Your task to perform on an android device: What's on my calendar tomorrow? Image 0: 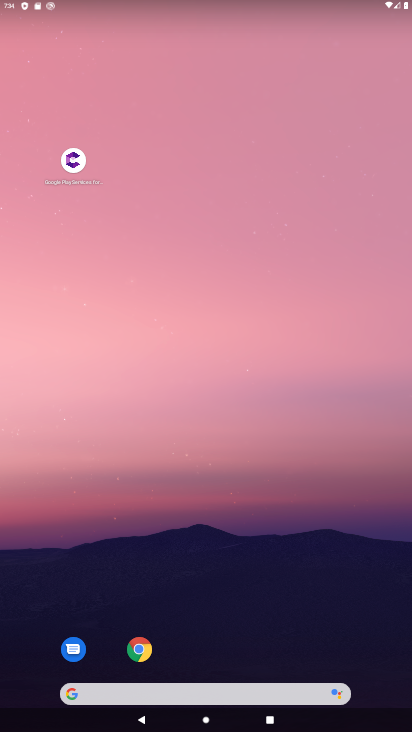
Step 0: press home button
Your task to perform on an android device: What's on my calendar tomorrow? Image 1: 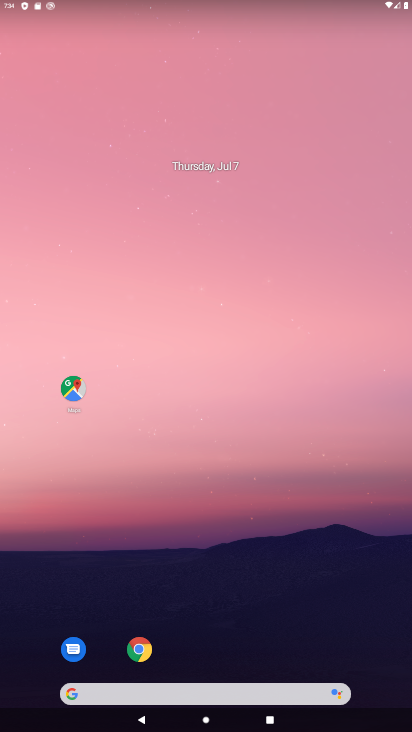
Step 1: drag from (219, 665) to (251, 184)
Your task to perform on an android device: What's on my calendar tomorrow? Image 2: 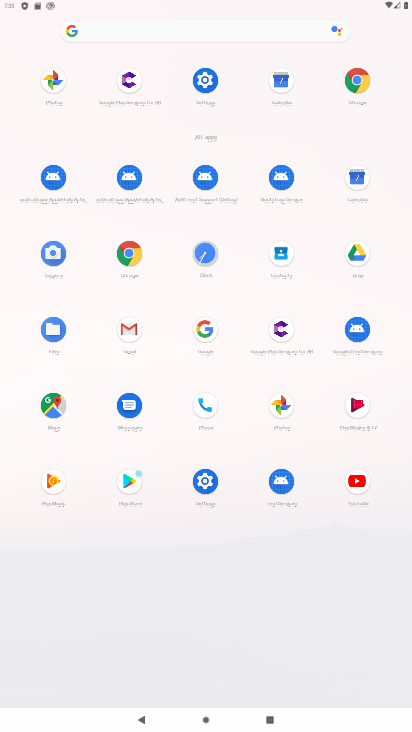
Step 2: click (354, 174)
Your task to perform on an android device: What's on my calendar tomorrow? Image 3: 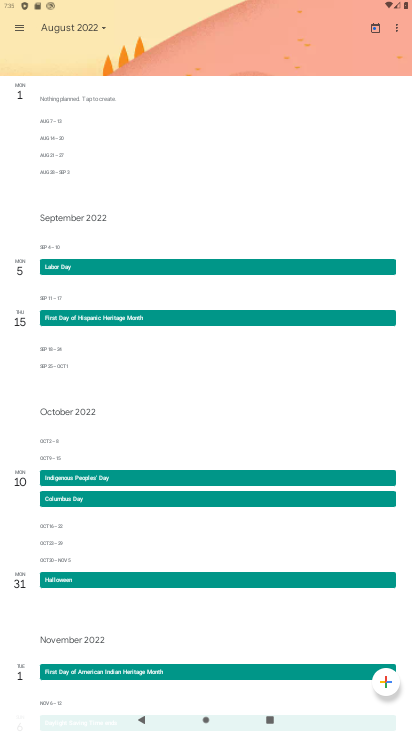
Step 3: click (22, 92)
Your task to perform on an android device: What's on my calendar tomorrow? Image 4: 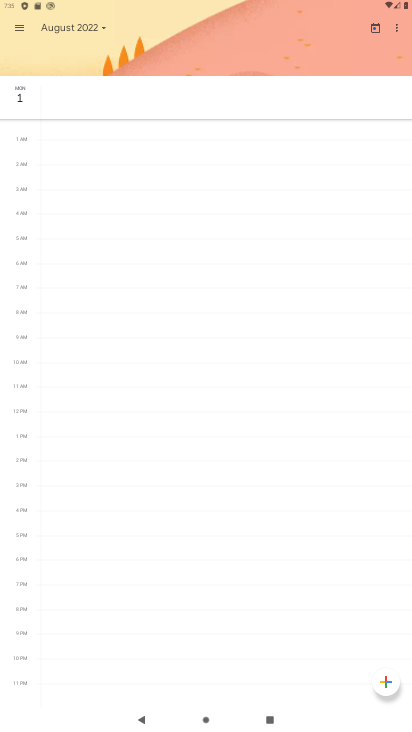
Step 4: click (25, 96)
Your task to perform on an android device: What's on my calendar tomorrow? Image 5: 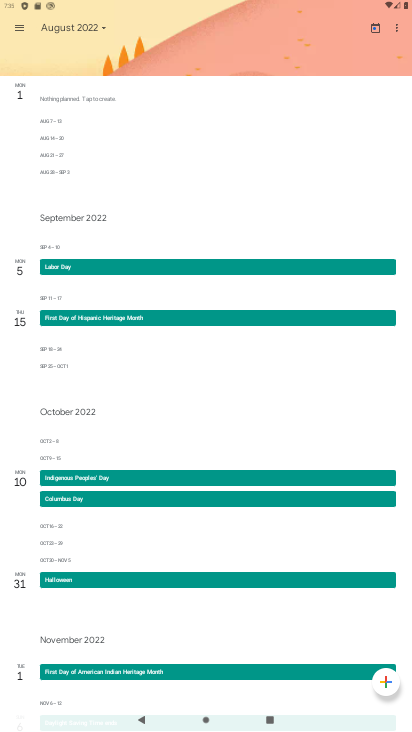
Step 5: click (102, 25)
Your task to perform on an android device: What's on my calendar tomorrow? Image 6: 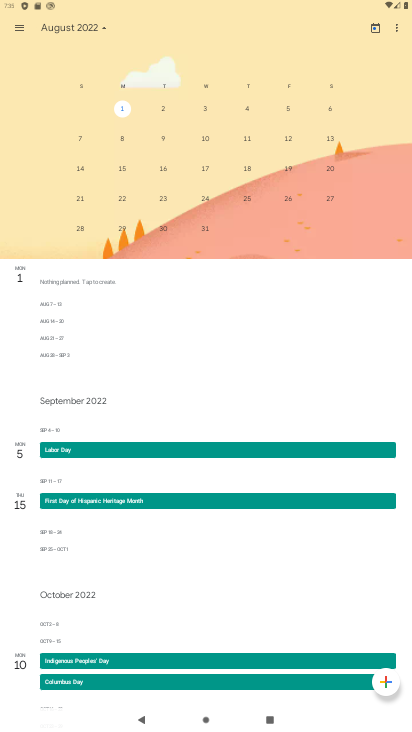
Step 6: drag from (68, 180) to (368, 166)
Your task to perform on an android device: What's on my calendar tomorrow? Image 7: 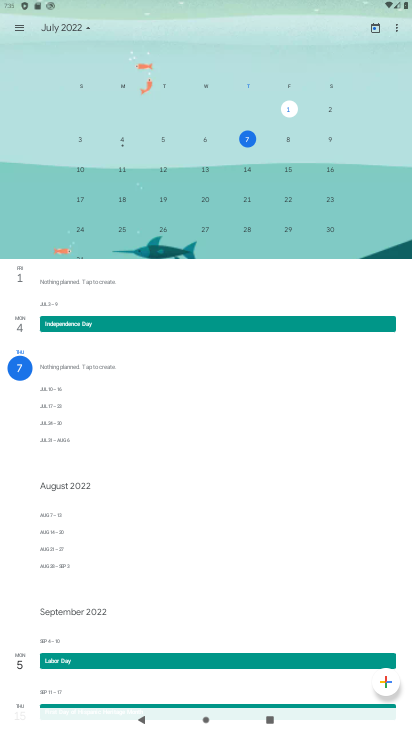
Step 7: click (285, 134)
Your task to perform on an android device: What's on my calendar tomorrow? Image 8: 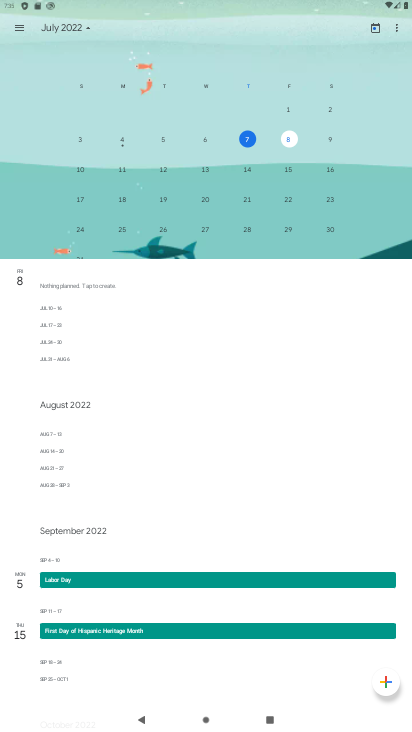
Step 8: click (22, 273)
Your task to perform on an android device: What's on my calendar tomorrow? Image 9: 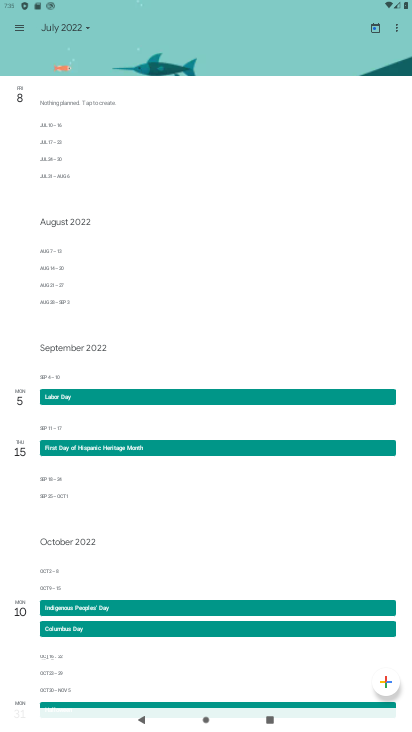
Step 9: click (24, 90)
Your task to perform on an android device: What's on my calendar tomorrow? Image 10: 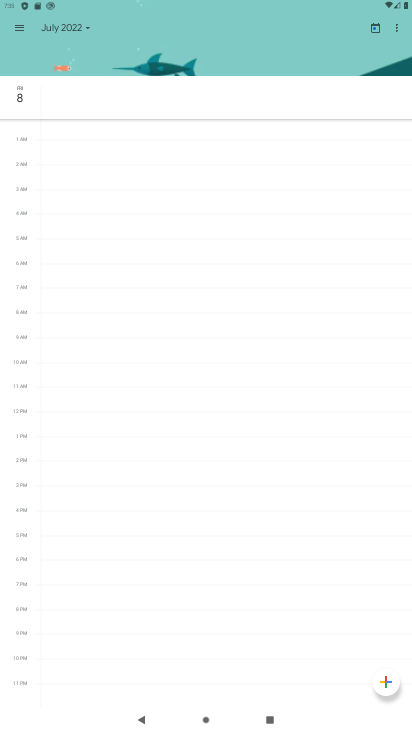
Step 10: task complete